Your task to perform on an android device: Go to sound settings Image 0: 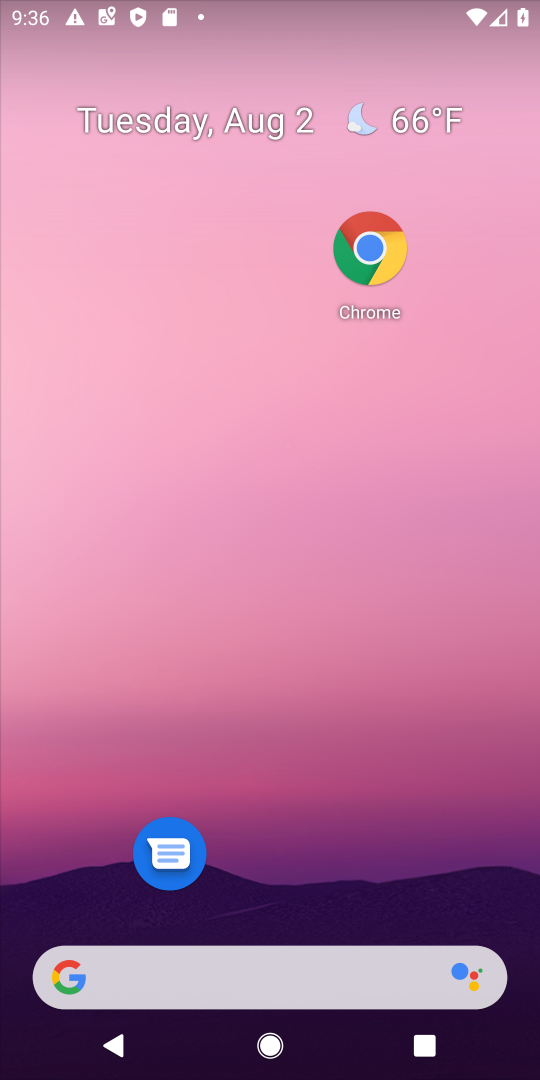
Step 0: press back button
Your task to perform on an android device: Go to sound settings Image 1: 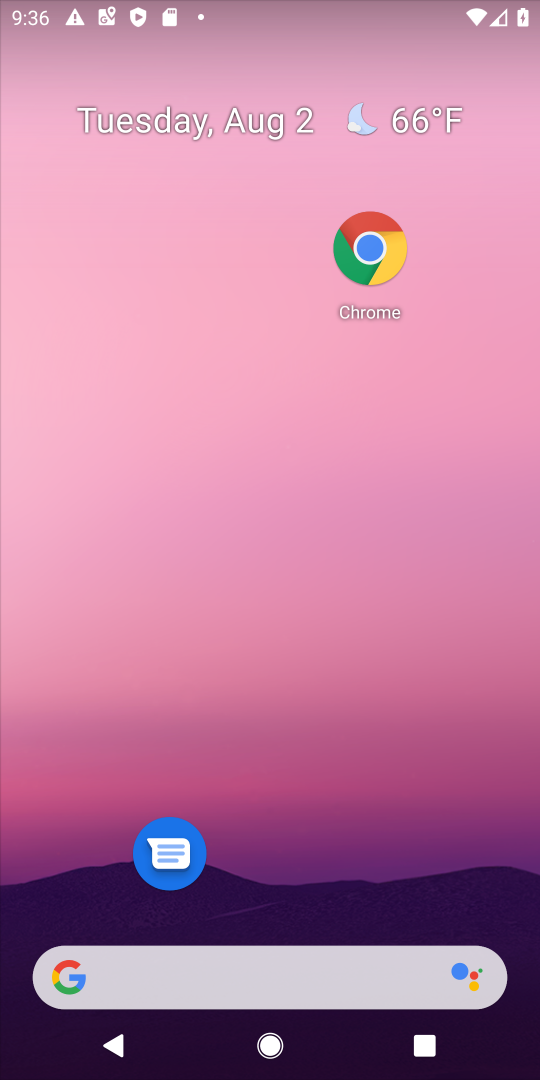
Step 1: drag from (286, 918) to (528, 470)
Your task to perform on an android device: Go to sound settings Image 2: 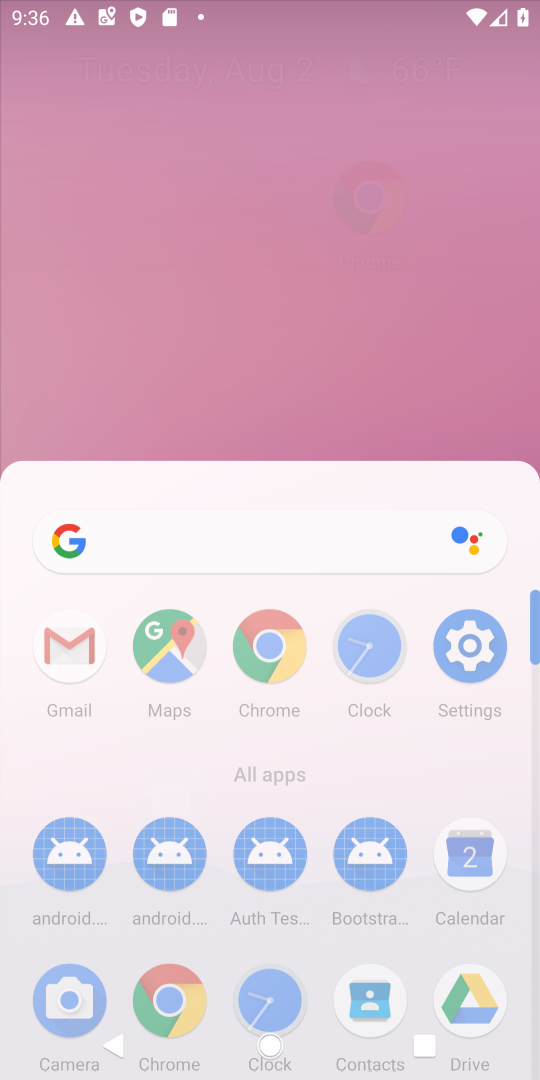
Step 2: click (464, 217)
Your task to perform on an android device: Go to sound settings Image 3: 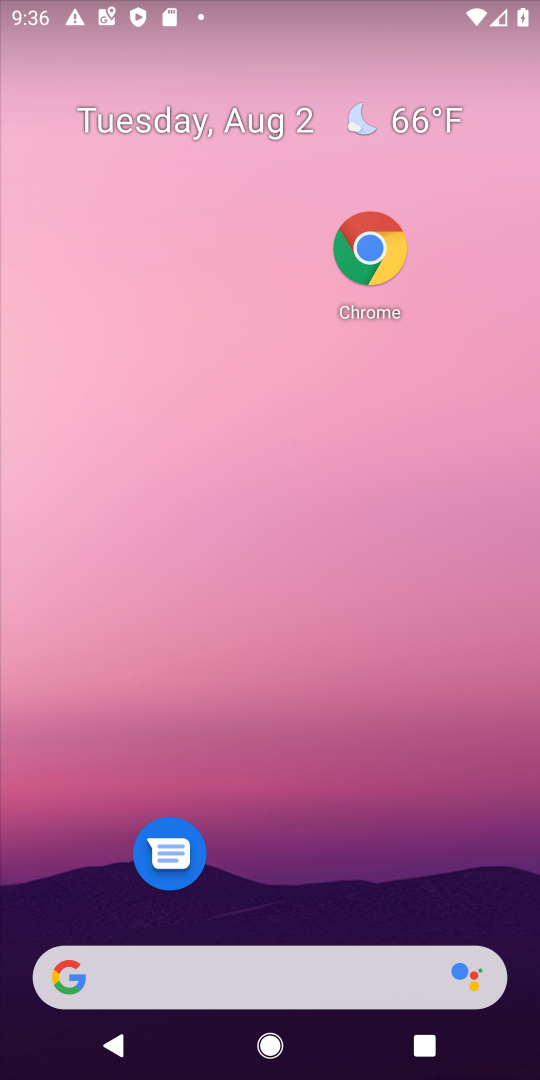
Step 3: drag from (256, 913) to (254, 236)
Your task to perform on an android device: Go to sound settings Image 4: 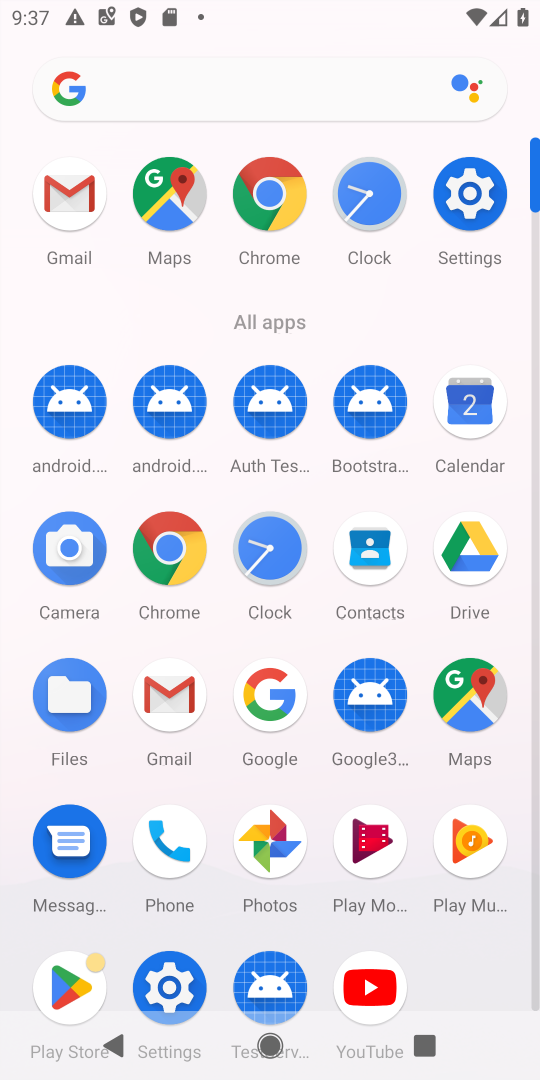
Step 4: click (500, 215)
Your task to perform on an android device: Go to sound settings Image 5: 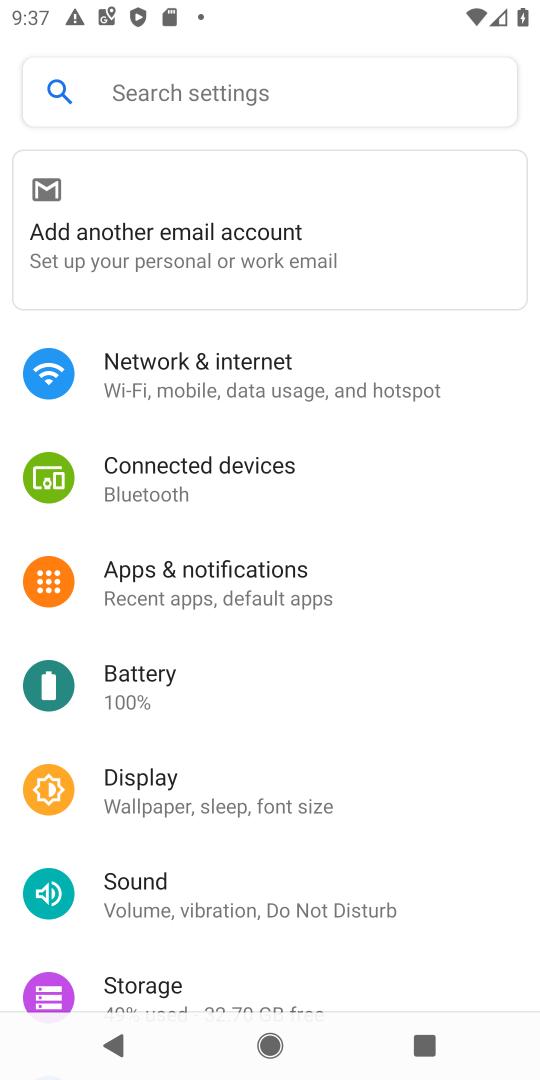
Step 5: click (142, 894)
Your task to perform on an android device: Go to sound settings Image 6: 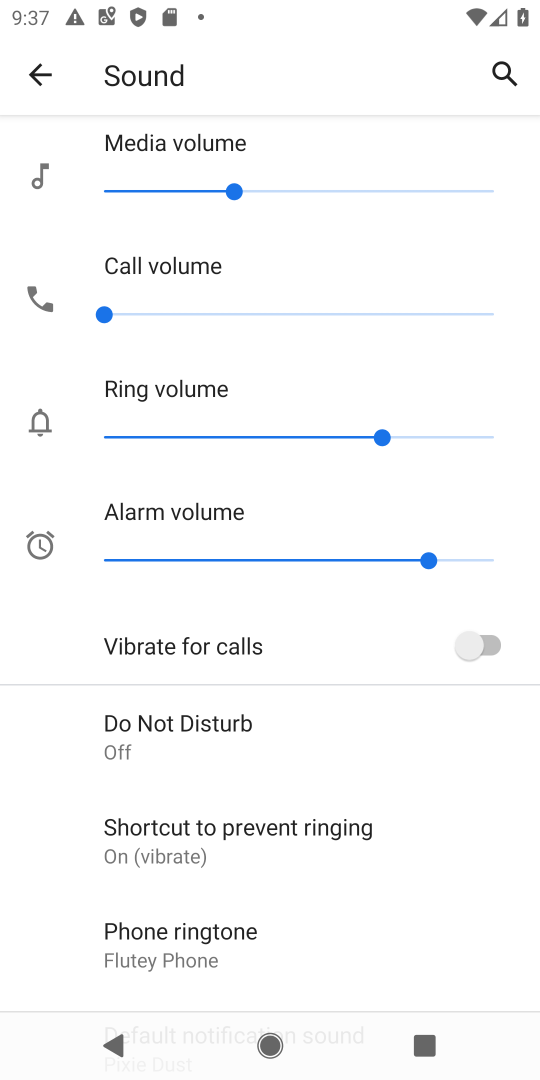
Step 6: task complete